Your task to perform on an android device: empty trash in google photos Image 0: 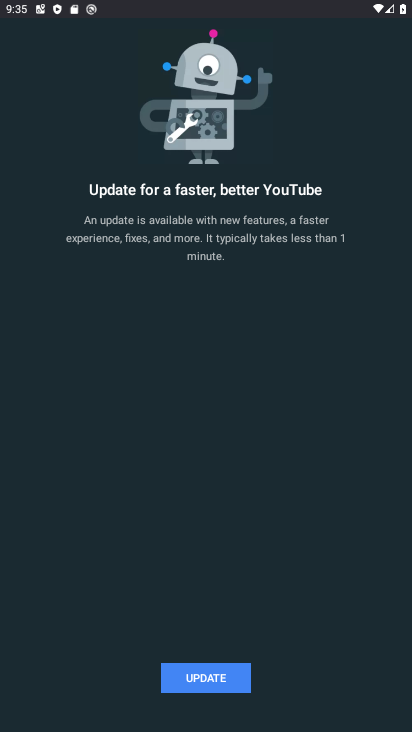
Step 0: press back button
Your task to perform on an android device: empty trash in google photos Image 1: 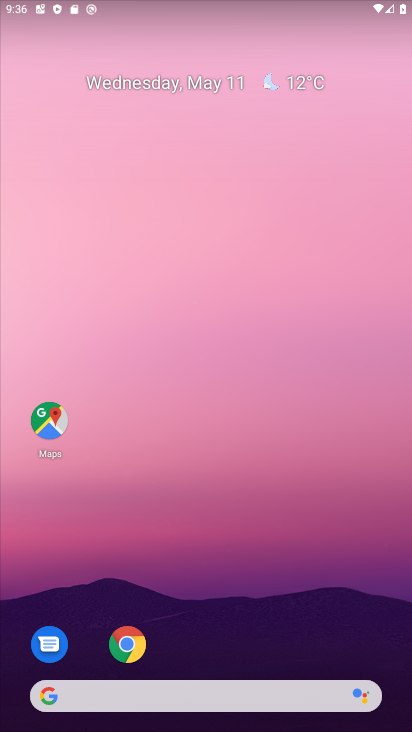
Step 1: drag from (227, 644) to (214, 82)
Your task to perform on an android device: empty trash in google photos Image 2: 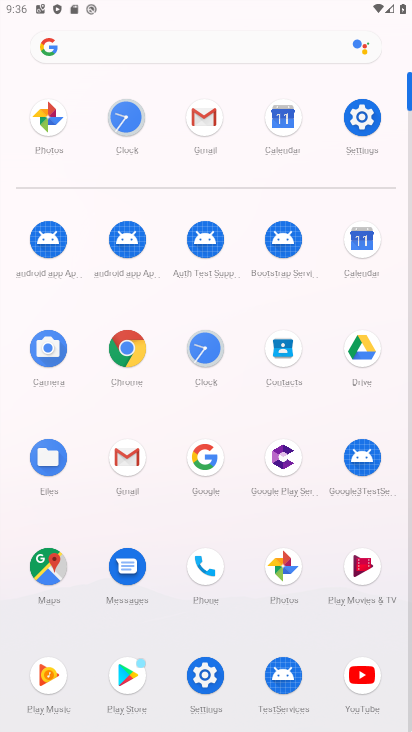
Step 2: click (52, 129)
Your task to perform on an android device: empty trash in google photos Image 3: 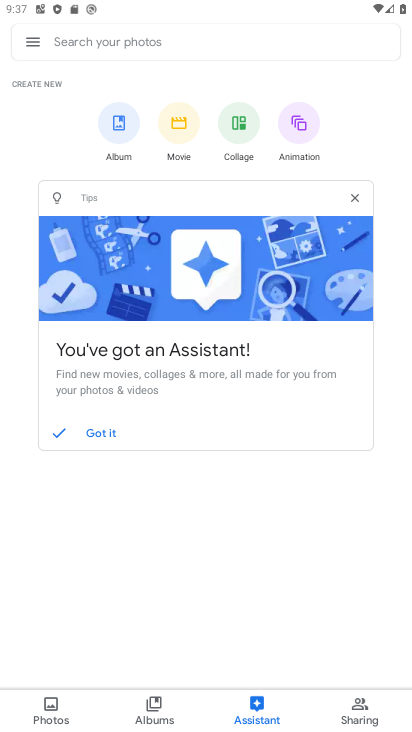
Step 3: click (28, 36)
Your task to perform on an android device: empty trash in google photos Image 4: 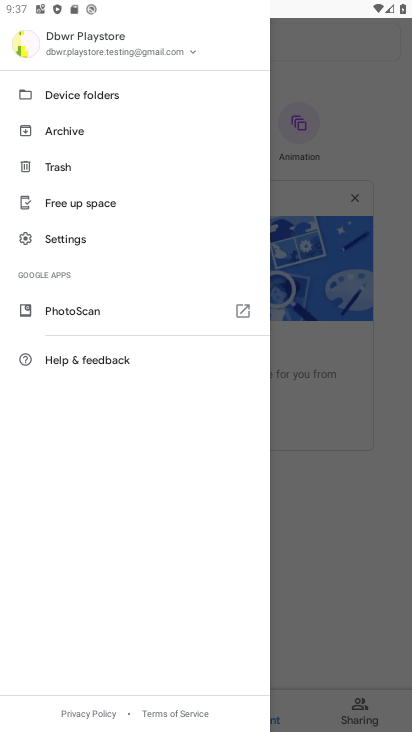
Step 4: click (78, 156)
Your task to perform on an android device: empty trash in google photos Image 5: 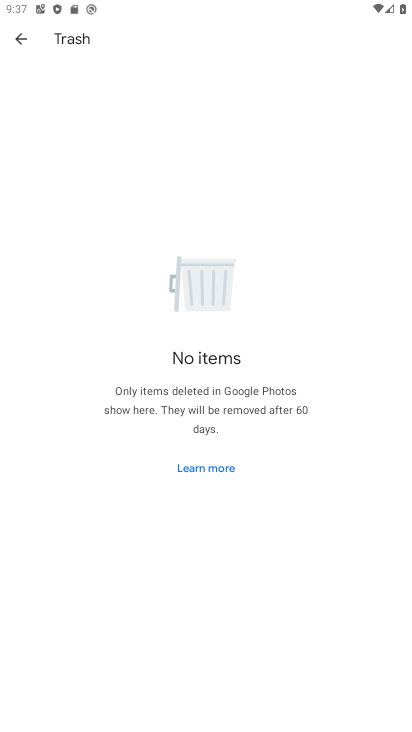
Step 5: task complete